Your task to perform on an android device: delete the emails in spam in the gmail app Image 0: 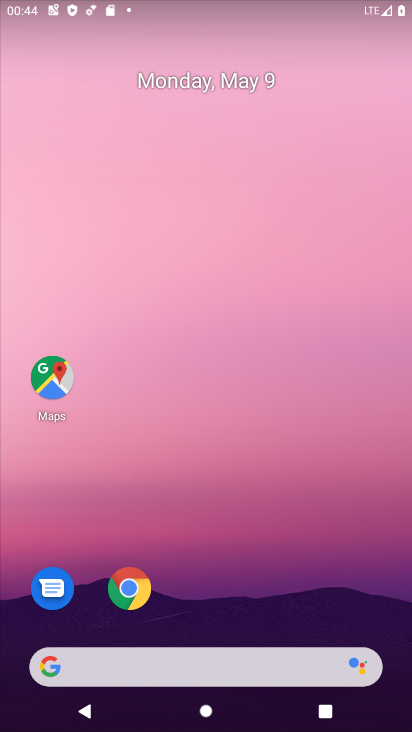
Step 0: drag from (267, 560) to (170, 82)
Your task to perform on an android device: delete the emails in spam in the gmail app Image 1: 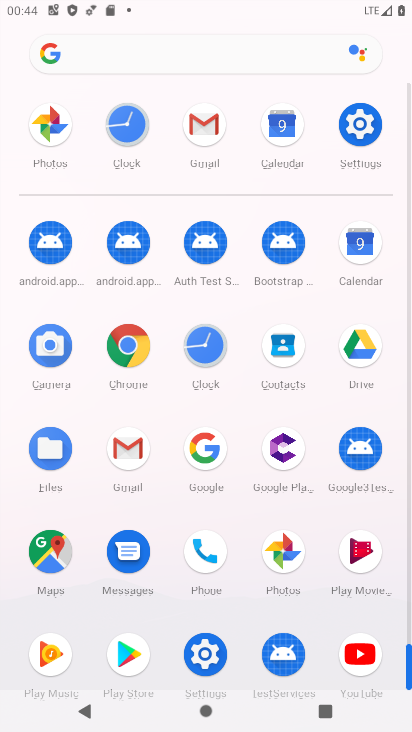
Step 1: click (206, 124)
Your task to perform on an android device: delete the emails in spam in the gmail app Image 2: 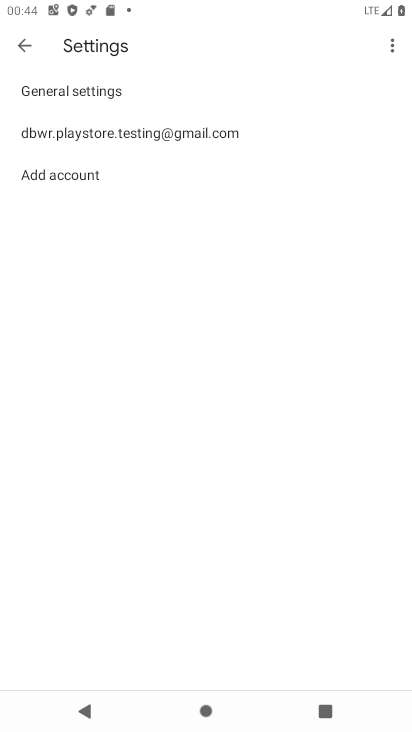
Step 2: click (26, 52)
Your task to perform on an android device: delete the emails in spam in the gmail app Image 3: 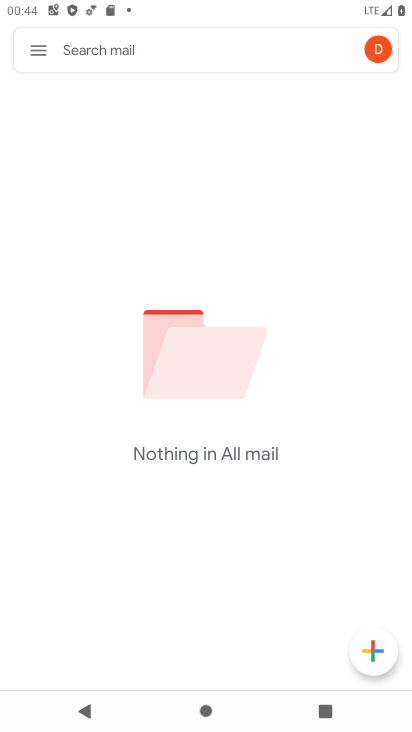
Step 3: click (26, 52)
Your task to perform on an android device: delete the emails in spam in the gmail app Image 4: 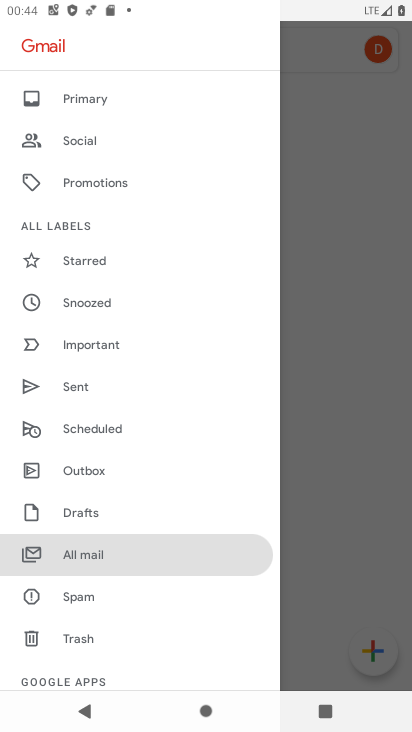
Step 4: click (75, 596)
Your task to perform on an android device: delete the emails in spam in the gmail app Image 5: 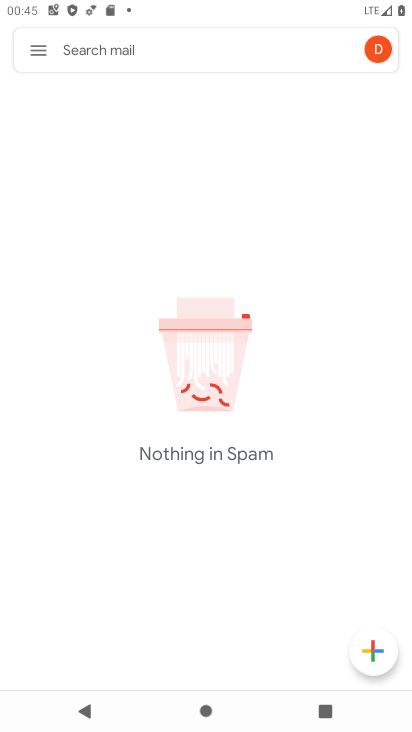
Step 5: task complete